Your task to perform on an android device: turn off notifications settings in the gmail app Image 0: 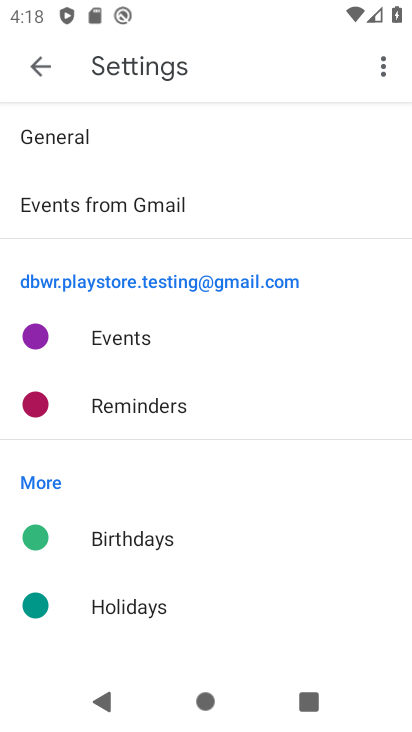
Step 0: press home button
Your task to perform on an android device: turn off notifications settings in the gmail app Image 1: 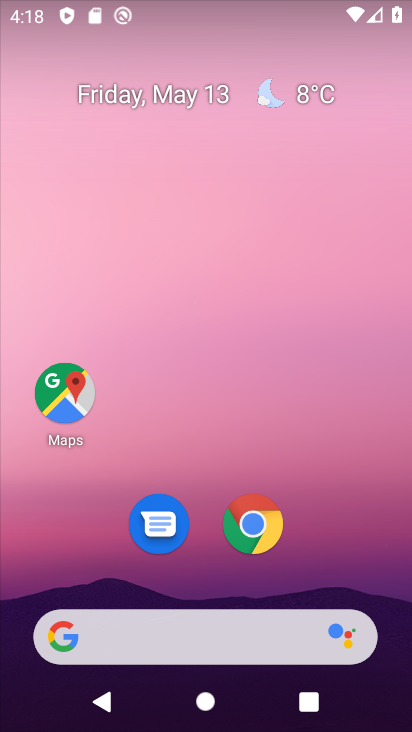
Step 1: drag from (330, 549) to (261, 49)
Your task to perform on an android device: turn off notifications settings in the gmail app Image 2: 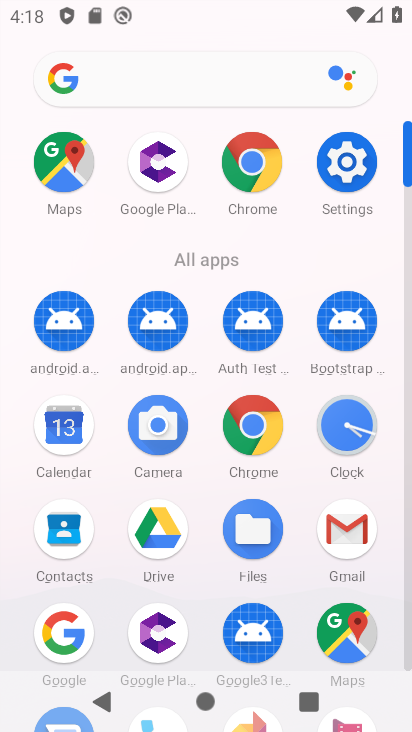
Step 2: click (346, 520)
Your task to perform on an android device: turn off notifications settings in the gmail app Image 3: 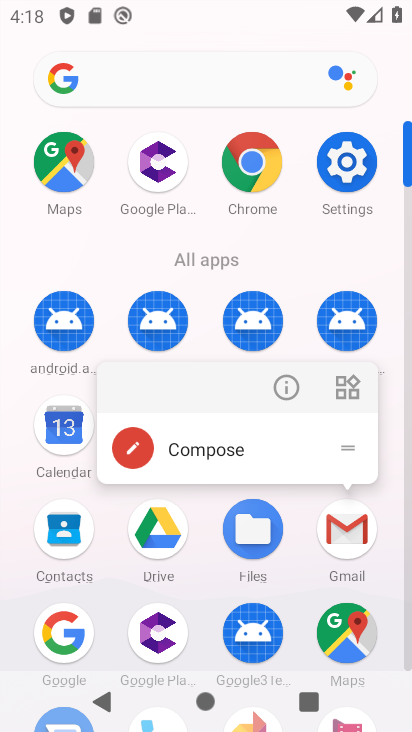
Step 3: click (346, 520)
Your task to perform on an android device: turn off notifications settings in the gmail app Image 4: 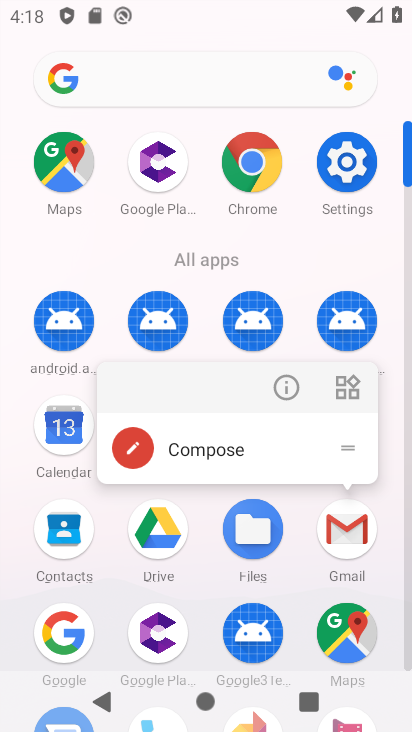
Step 4: click (346, 520)
Your task to perform on an android device: turn off notifications settings in the gmail app Image 5: 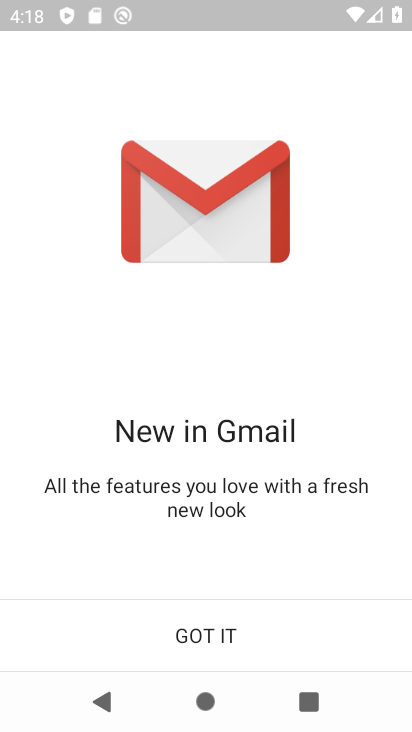
Step 5: click (267, 626)
Your task to perform on an android device: turn off notifications settings in the gmail app Image 6: 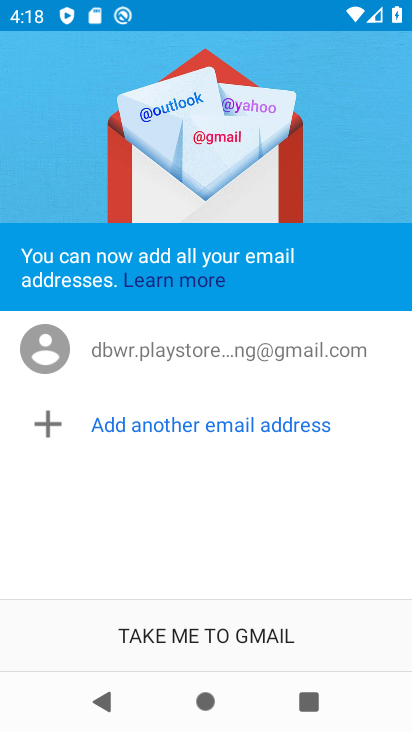
Step 6: click (267, 626)
Your task to perform on an android device: turn off notifications settings in the gmail app Image 7: 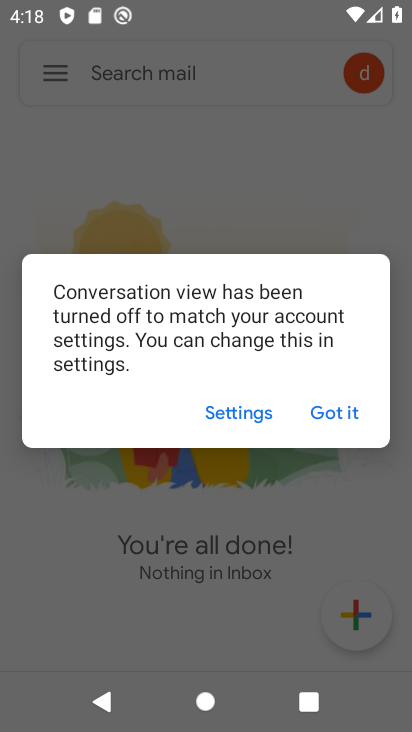
Step 7: click (333, 407)
Your task to perform on an android device: turn off notifications settings in the gmail app Image 8: 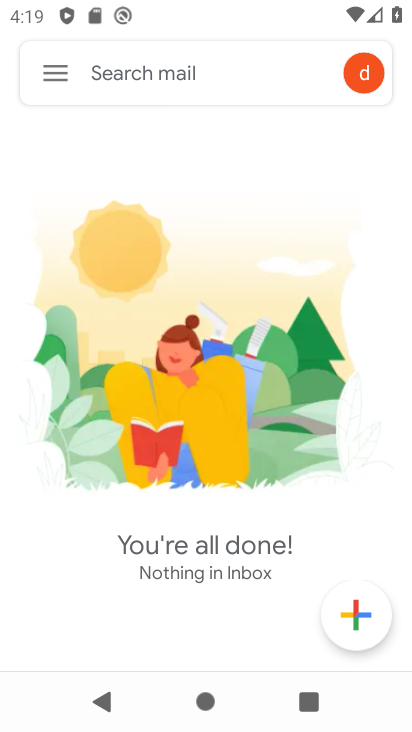
Step 8: click (52, 67)
Your task to perform on an android device: turn off notifications settings in the gmail app Image 9: 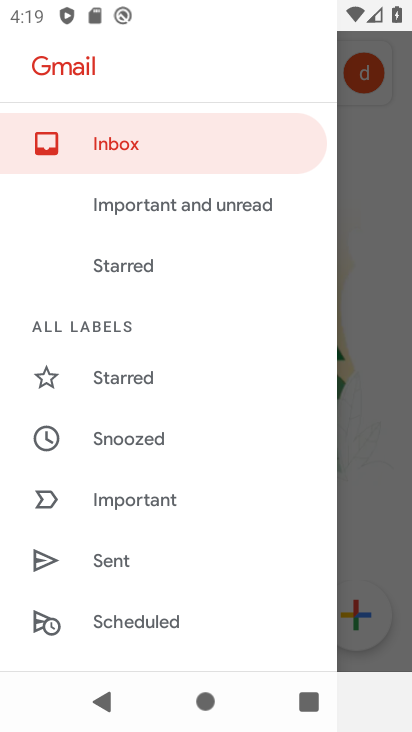
Step 9: drag from (183, 546) to (194, 0)
Your task to perform on an android device: turn off notifications settings in the gmail app Image 10: 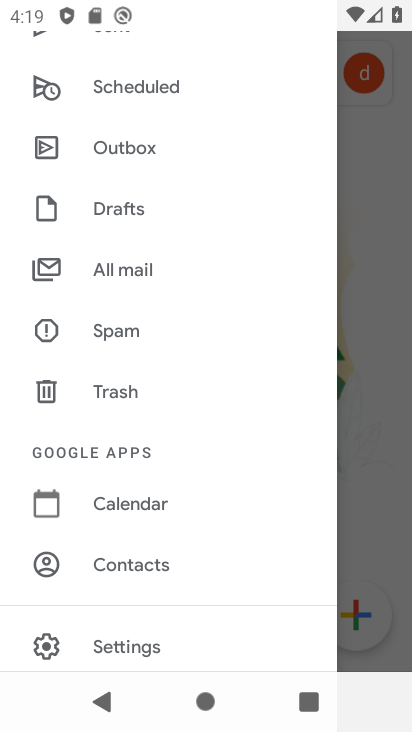
Step 10: click (209, 644)
Your task to perform on an android device: turn off notifications settings in the gmail app Image 11: 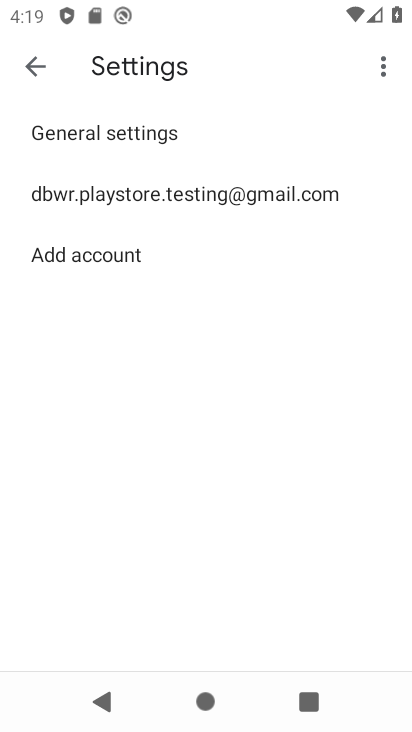
Step 11: click (152, 134)
Your task to perform on an android device: turn off notifications settings in the gmail app Image 12: 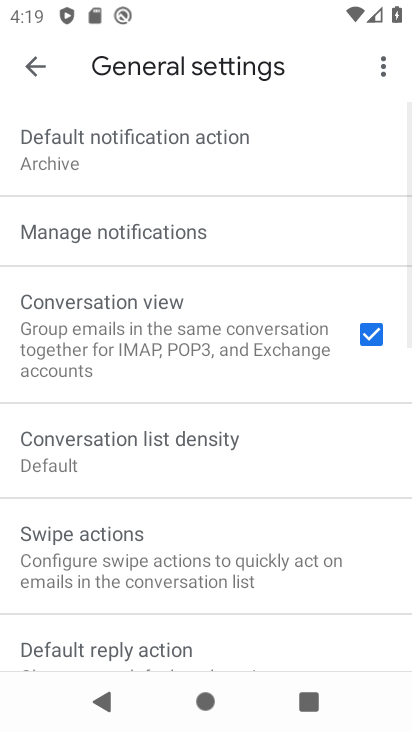
Step 12: click (157, 236)
Your task to perform on an android device: turn off notifications settings in the gmail app Image 13: 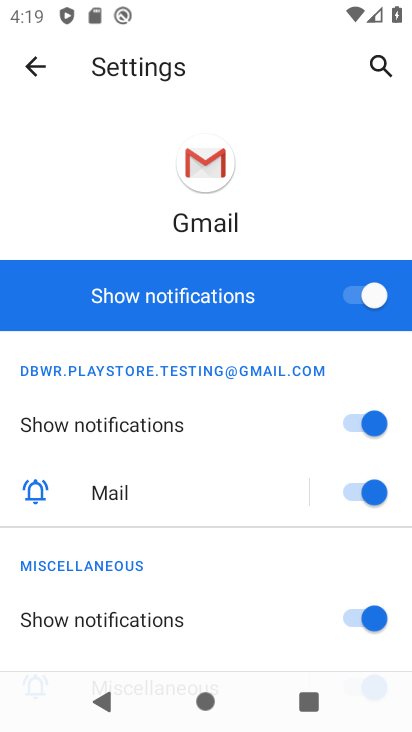
Step 13: click (358, 296)
Your task to perform on an android device: turn off notifications settings in the gmail app Image 14: 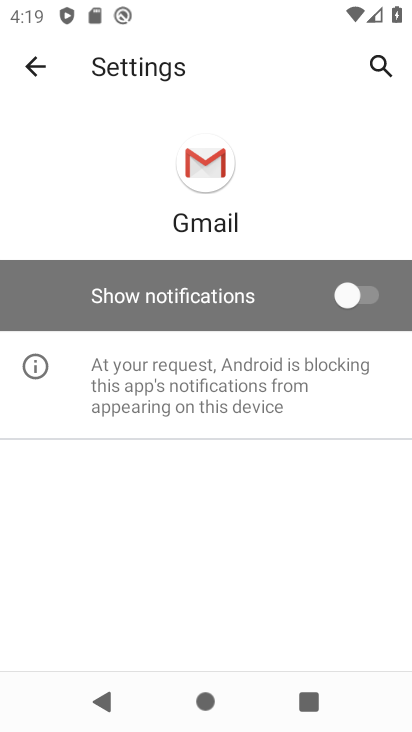
Step 14: task complete